Your task to perform on an android device: Open accessibility settings Image 0: 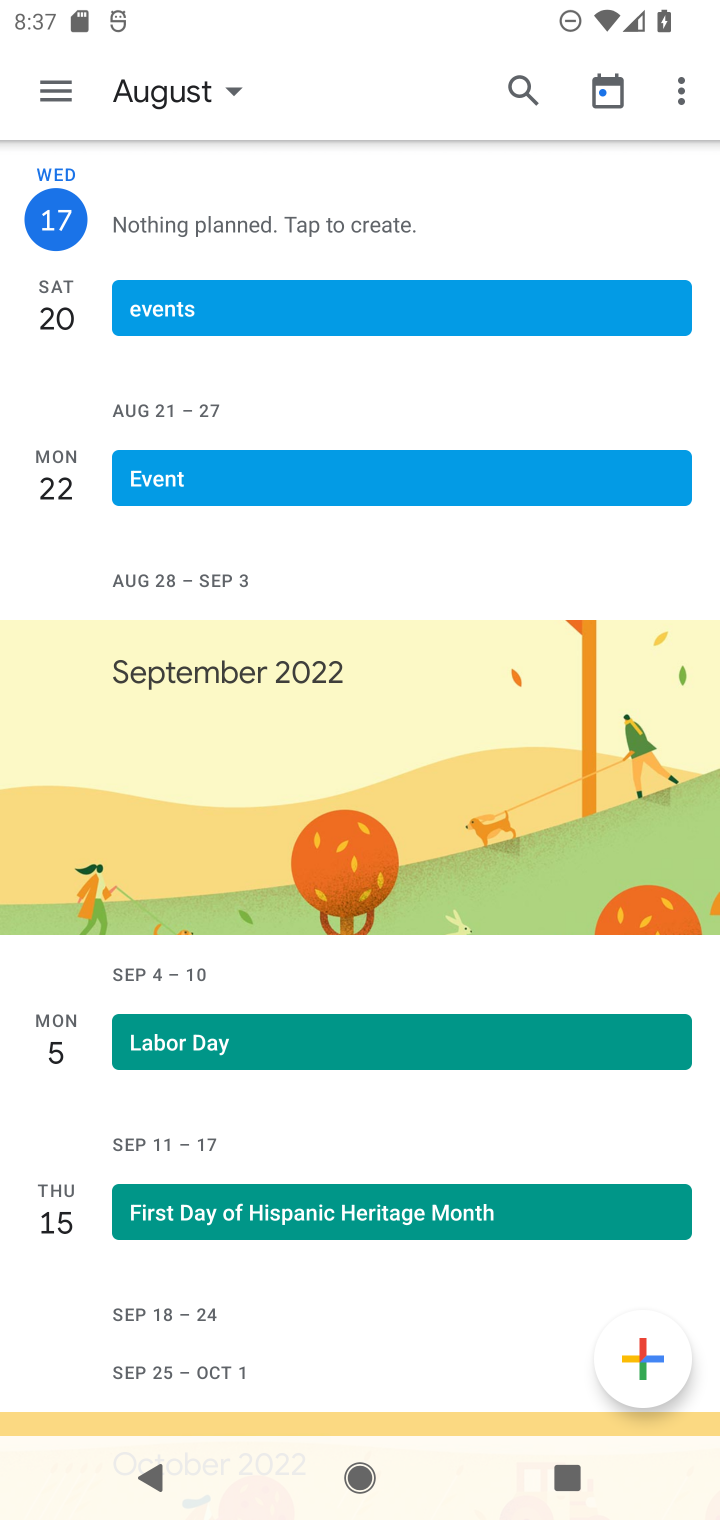
Step 0: task complete